Your task to perform on an android device: check android version Image 0: 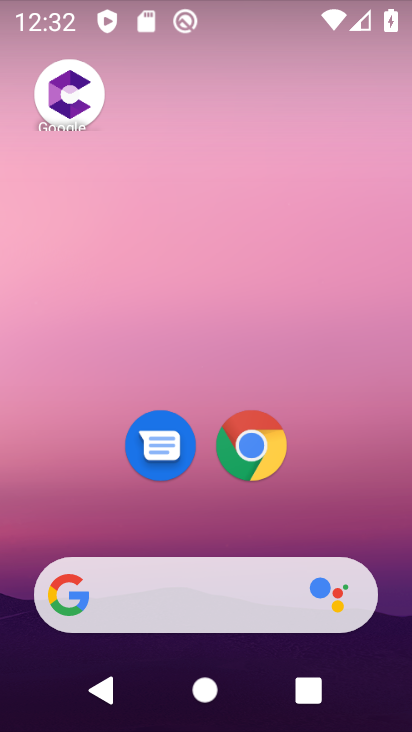
Step 0: drag from (375, 512) to (369, 56)
Your task to perform on an android device: check android version Image 1: 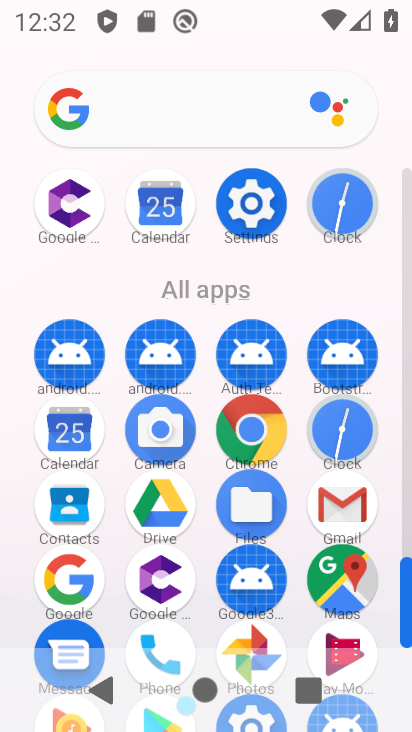
Step 1: click (242, 207)
Your task to perform on an android device: check android version Image 2: 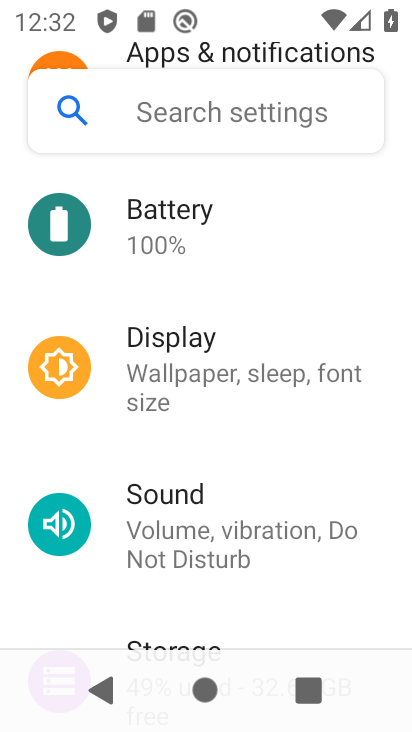
Step 2: drag from (352, 307) to (367, 470)
Your task to perform on an android device: check android version Image 3: 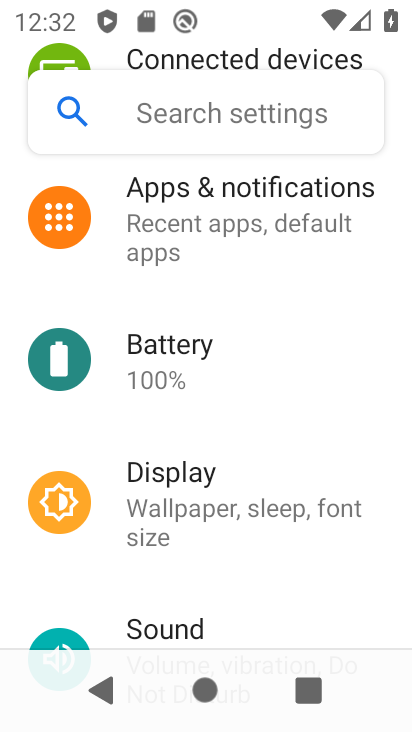
Step 3: drag from (385, 243) to (381, 430)
Your task to perform on an android device: check android version Image 4: 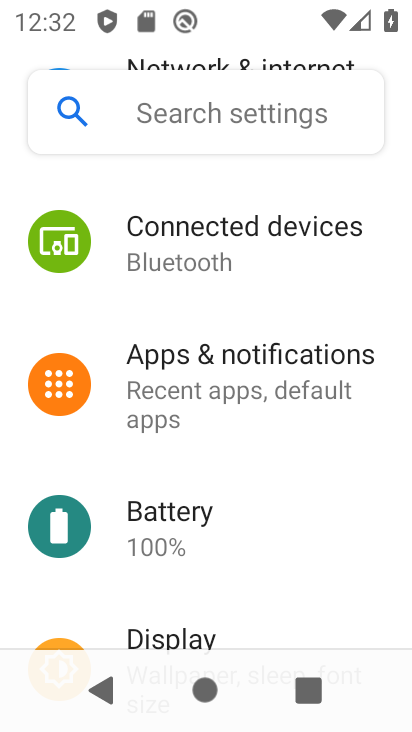
Step 4: drag from (380, 219) to (382, 444)
Your task to perform on an android device: check android version Image 5: 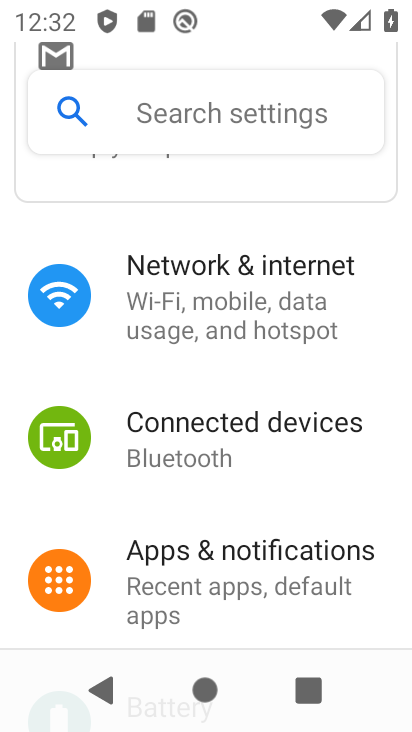
Step 5: drag from (388, 494) to (380, 288)
Your task to perform on an android device: check android version Image 6: 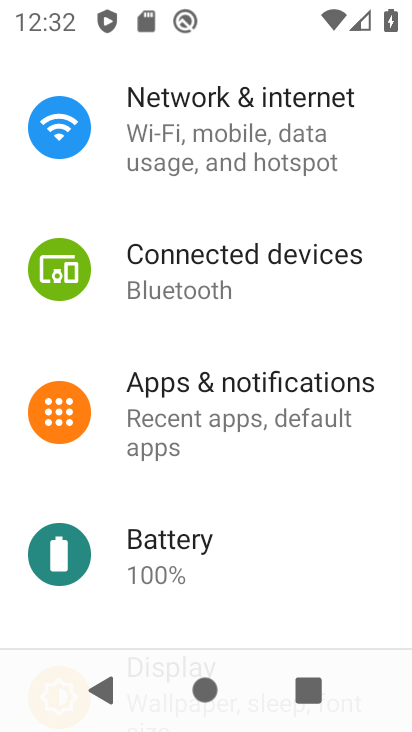
Step 6: drag from (362, 563) to (368, 267)
Your task to perform on an android device: check android version Image 7: 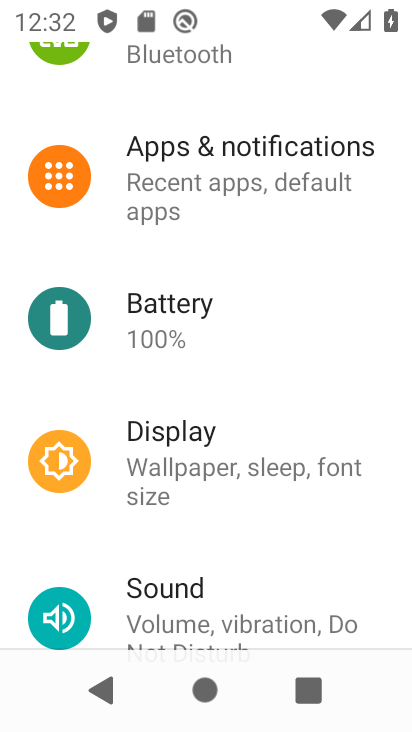
Step 7: drag from (365, 493) to (374, 246)
Your task to perform on an android device: check android version Image 8: 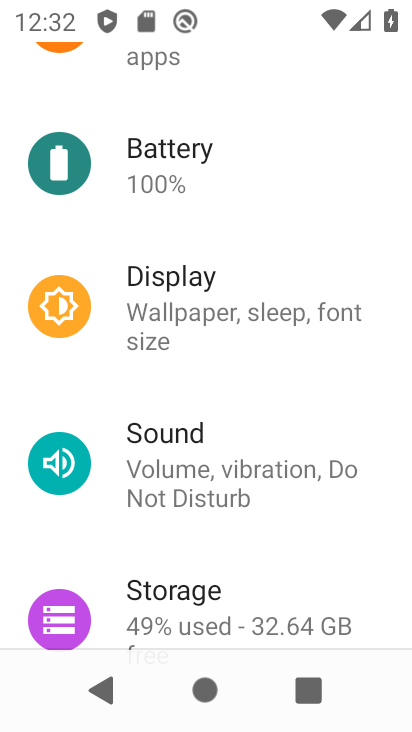
Step 8: drag from (378, 555) to (373, 265)
Your task to perform on an android device: check android version Image 9: 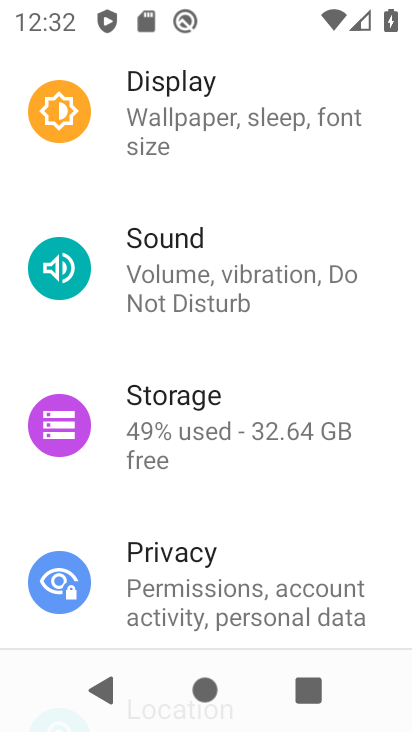
Step 9: drag from (379, 573) to (378, 238)
Your task to perform on an android device: check android version Image 10: 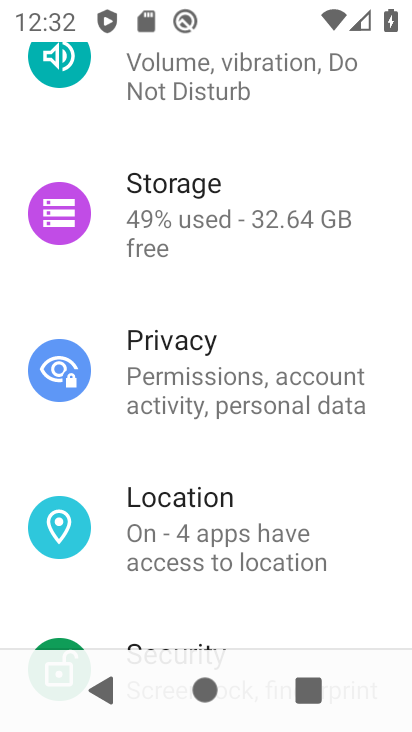
Step 10: drag from (365, 595) to (375, 330)
Your task to perform on an android device: check android version Image 11: 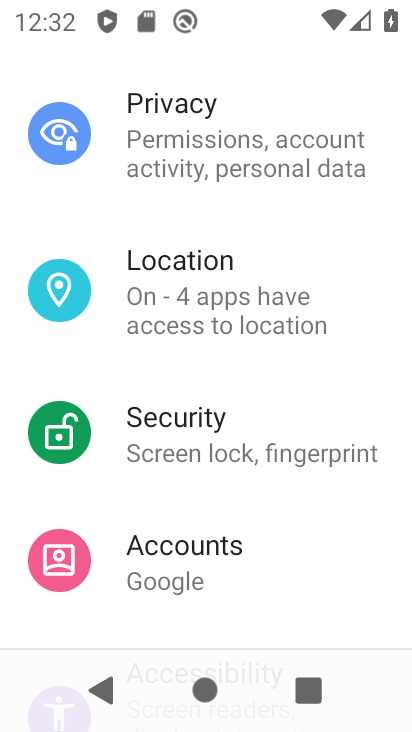
Step 11: drag from (362, 564) to (360, 308)
Your task to perform on an android device: check android version Image 12: 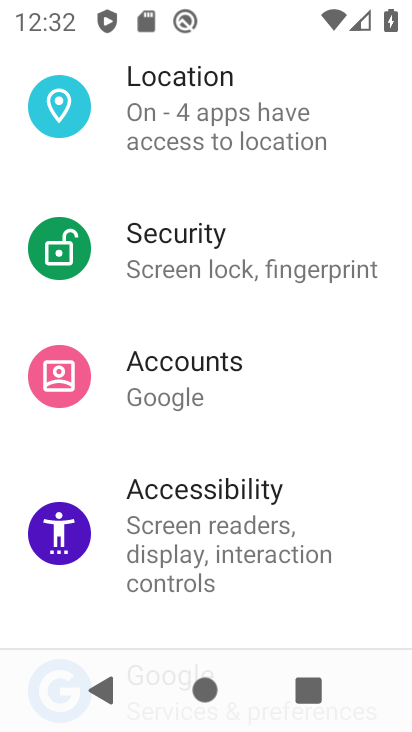
Step 12: drag from (346, 563) to (331, 307)
Your task to perform on an android device: check android version Image 13: 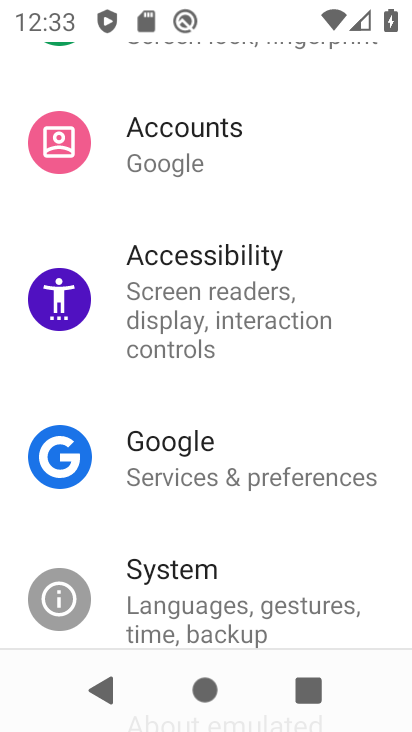
Step 13: click (222, 586)
Your task to perform on an android device: check android version Image 14: 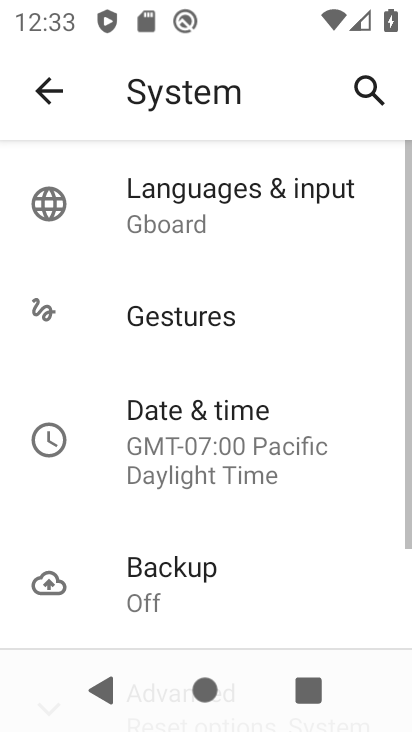
Step 14: drag from (323, 575) to (344, 236)
Your task to perform on an android device: check android version Image 15: 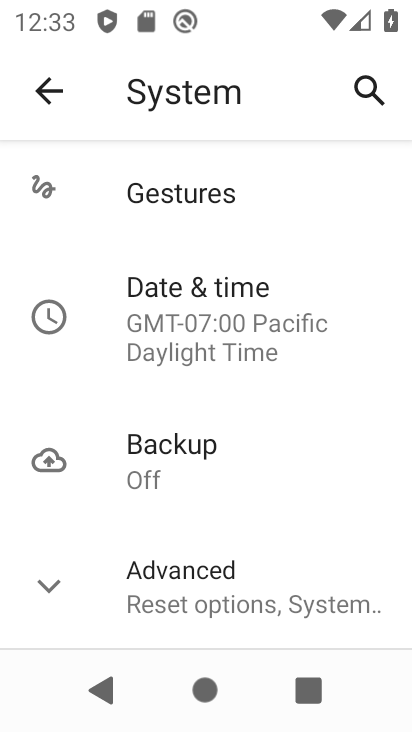
Step 15: click (267, 598)
Your task to perform on an android device: check android version Image 16: 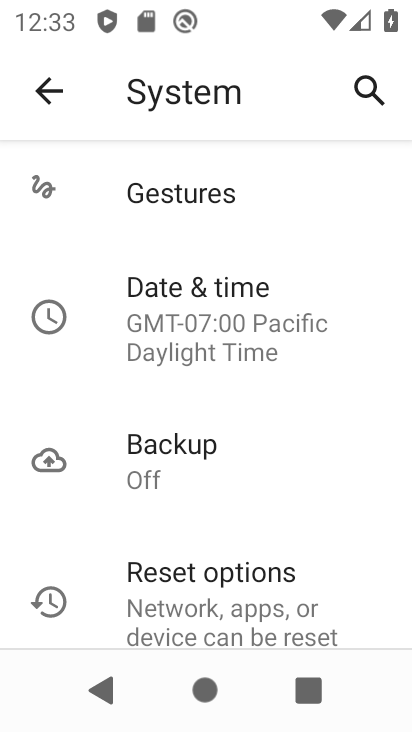
Step 16: drag from (352, 562) to (374, 265)
Your task to perform on an android device: check android version Image 17: 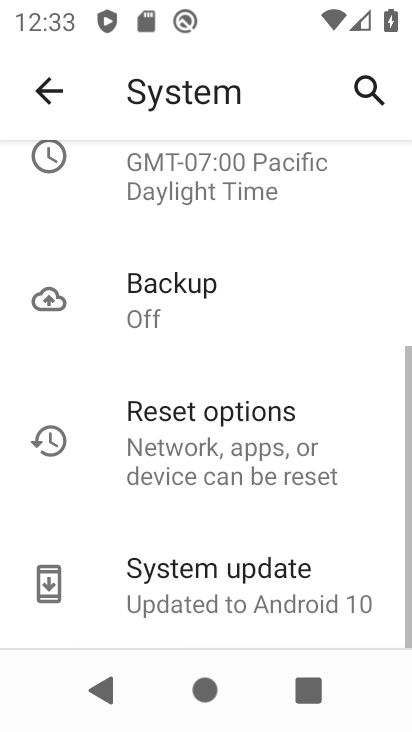
Step 17: click (312, 588)
Your task to perform on an android device: check android version Image 18: 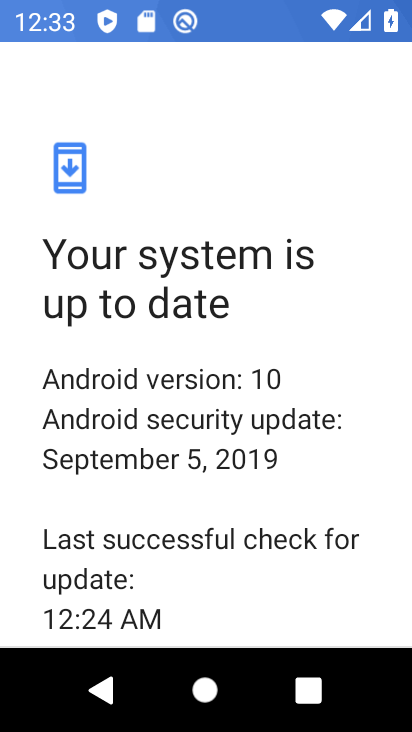
Step 18: task complete